Your task to perform on an android device: add a contact in the contacts app Image 0: 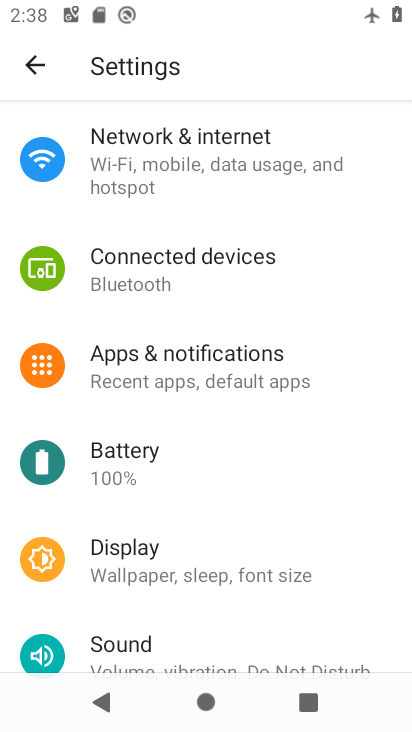
Step 0: press home button
Your task to perform on an android device: add a contact in the contacts app Image 1: 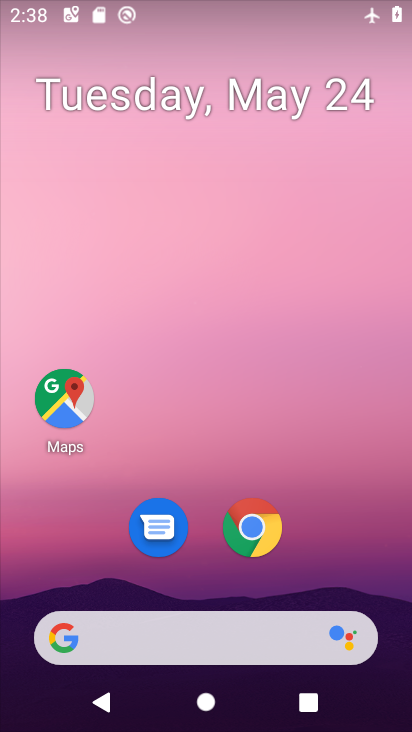
Step 1: drag from (331, 585) to (299, 2)
Your task to perform on an android device: add a contact in the contacts app Image 2: 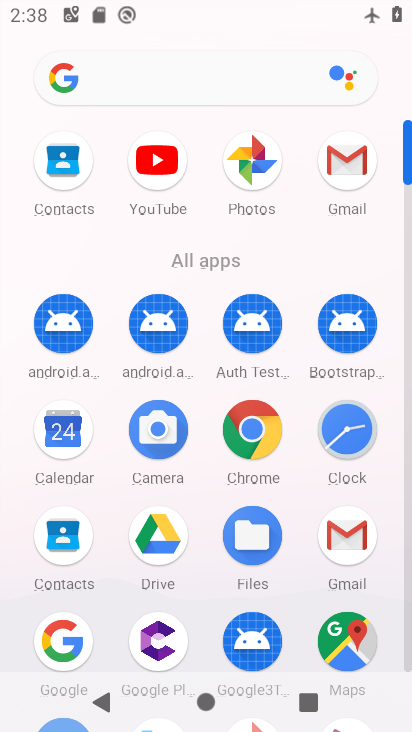
Step 2: click (59, 531)
Your task to perform on an android device: add a contact in the contacts app Image 3: 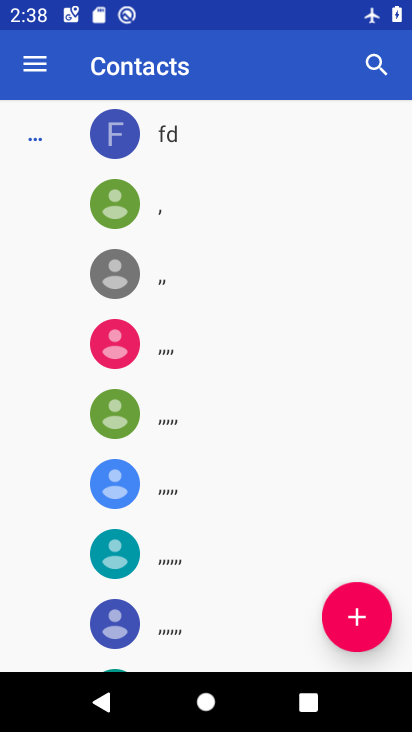
Step 3: click (354, 622)
Your task to perform on an android device: add a contact in the contacts app Image 4: 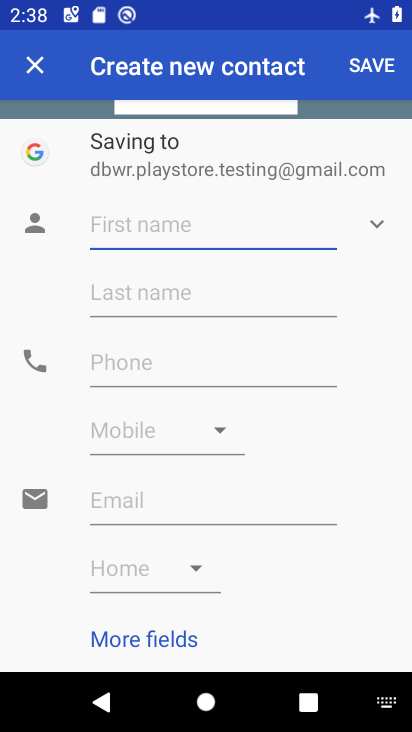
Step 4: type "vira"
Your task to perform on an android device: add a contact in the contacts app Image 5: 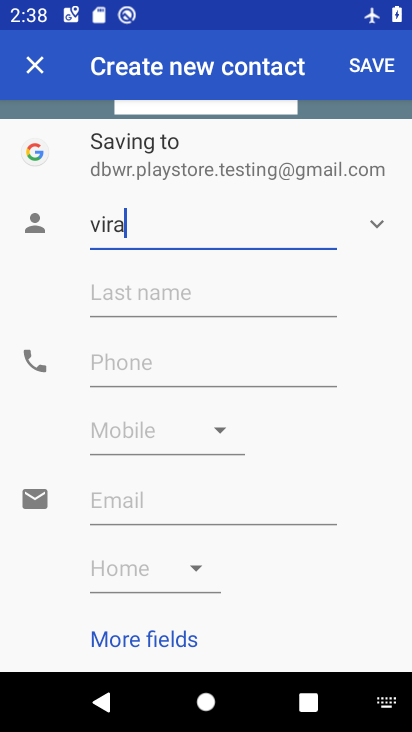
Step 5: click (149, 373)
Your task to perform on an android device: add a contact in the contacts app Image 6: 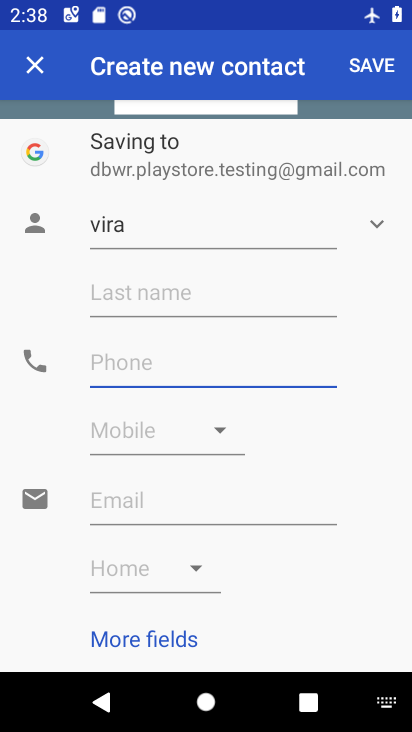
Step 6: type "98765544"
Your task to perform on an android device: add a contact in the contacts app Image 7: 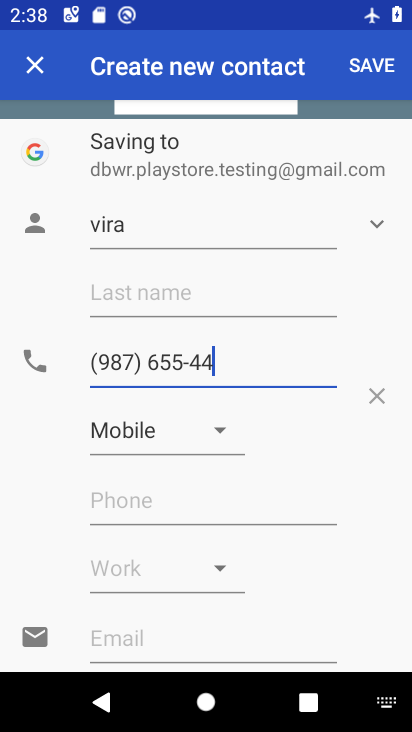
Step 7: click (389, 63)
Your task to perform on an android device: add a contact in the contacts app Image 8: 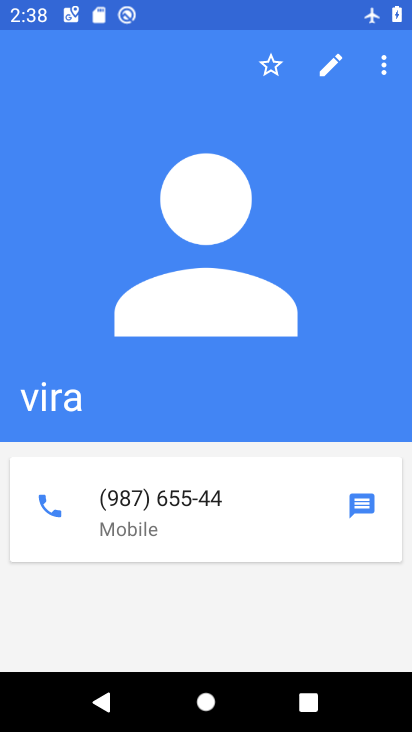
Step 8: task complete